Your task to perform on an android device: turn vacation reply on in the gmail app Image 0: 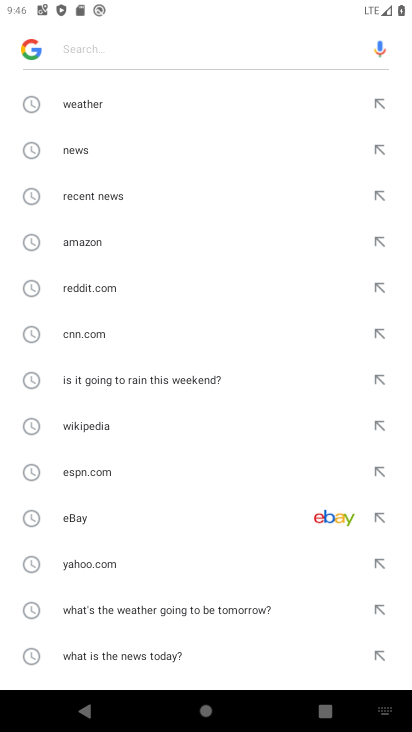
Step 0: press home button
Your task to perform on an android device: turn vacation reply on in the gmail app Image 1: 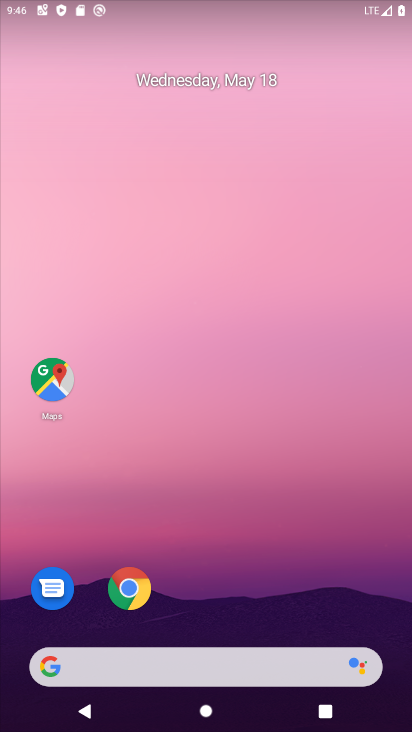
Step 1: drag from (250, 621) to (221, 14)
Your task to perform on an android device: turn vacation reply on in the gmail app Image 2: 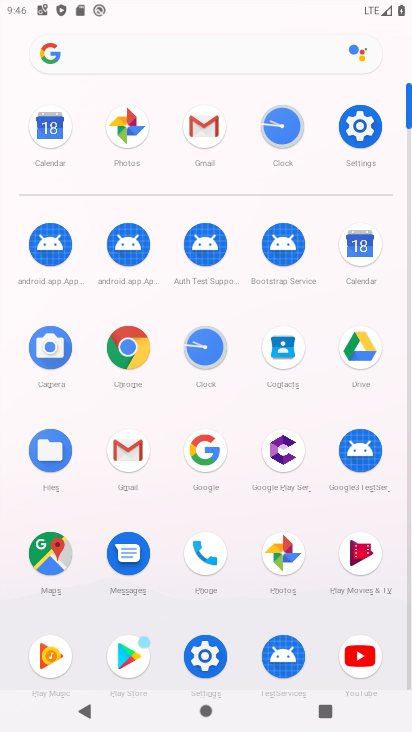
Step 2: click (210, 135)
Your task to perform on an android device: turn vacation reply on in the gmail app Image 3: 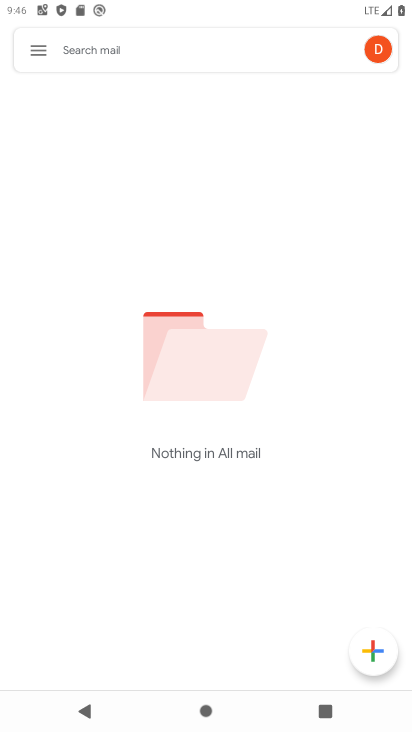
Step 3: click (36, 51)
Your task to perform on an android device: turn vacation reply on in the gmail app Image 4: 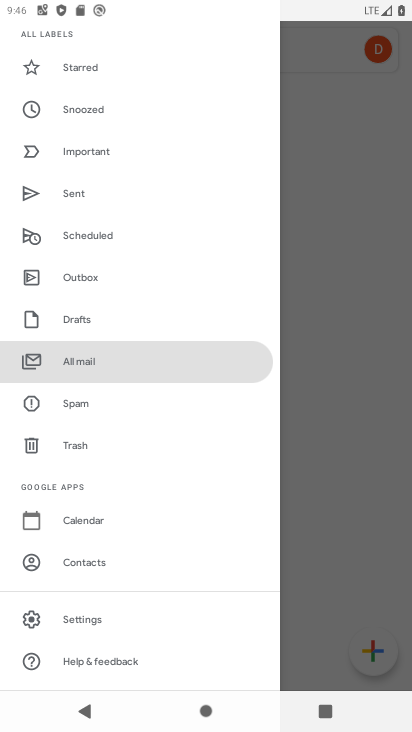
Step 4: click (94, 618)
Your task to perform on an android device: turn vacation reply on in the gmail app Image 5: 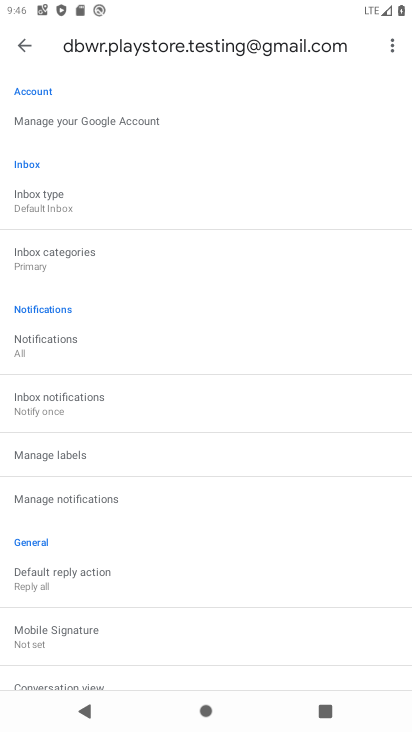
Step 5: drag from (168, 482) to (176, 99)
Your task to perform on an android device: turn vacation reply on in the gmail app Image 6: 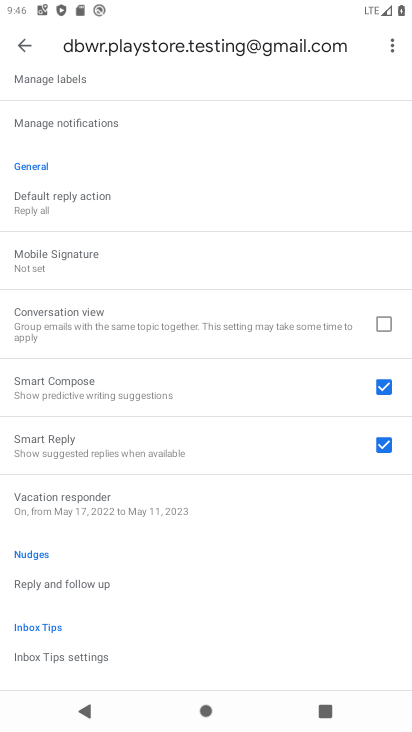
Step 6: click (86, 507)
Your task to perform on an android device: turn vacation reply on in the gmail app Image 7: 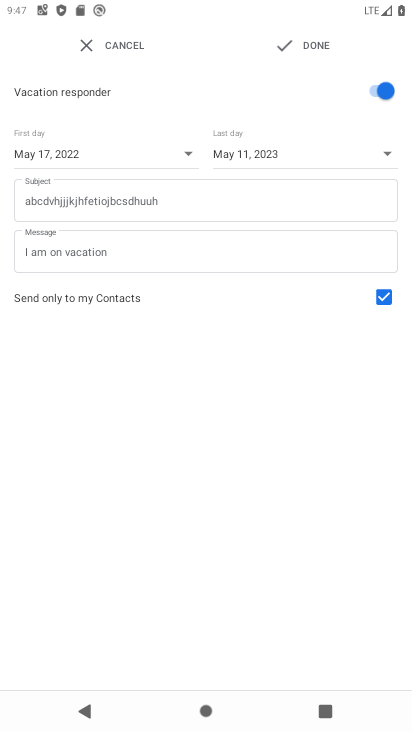
Step 7: click (308, 41)
Your task to perform on an android device: turn vacation reply on in the gmail app Image 8: 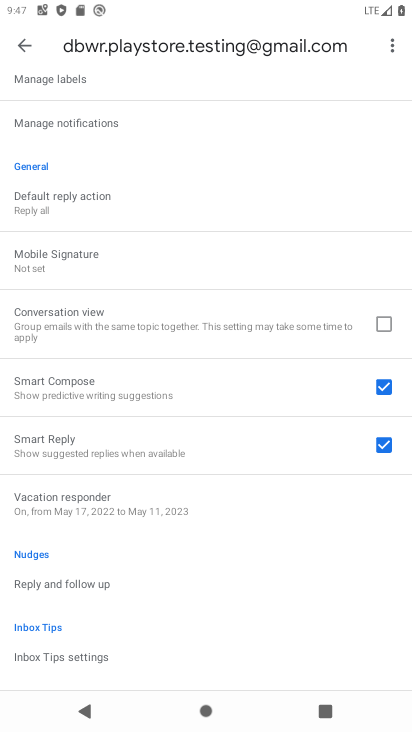
Step 8: task complete